Your task to perform on an android device: install app "VLC for Android" Image 0: 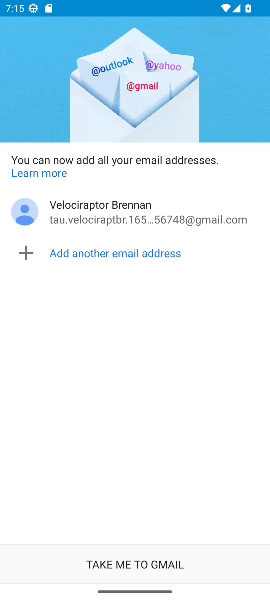
Step 0: click (161, 550)
Your task to perform on an android device: install app "VLC for Android" Image 1: 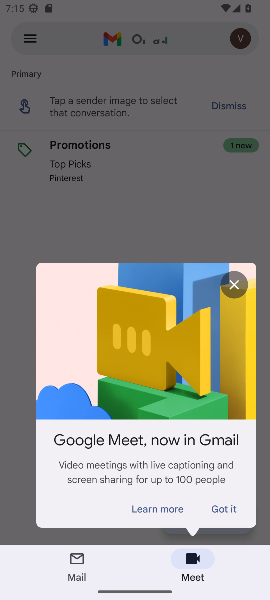
Step 1: task complete